Your task to perform on an android device: uninstall "Duolingo: language lessons" Image 0: 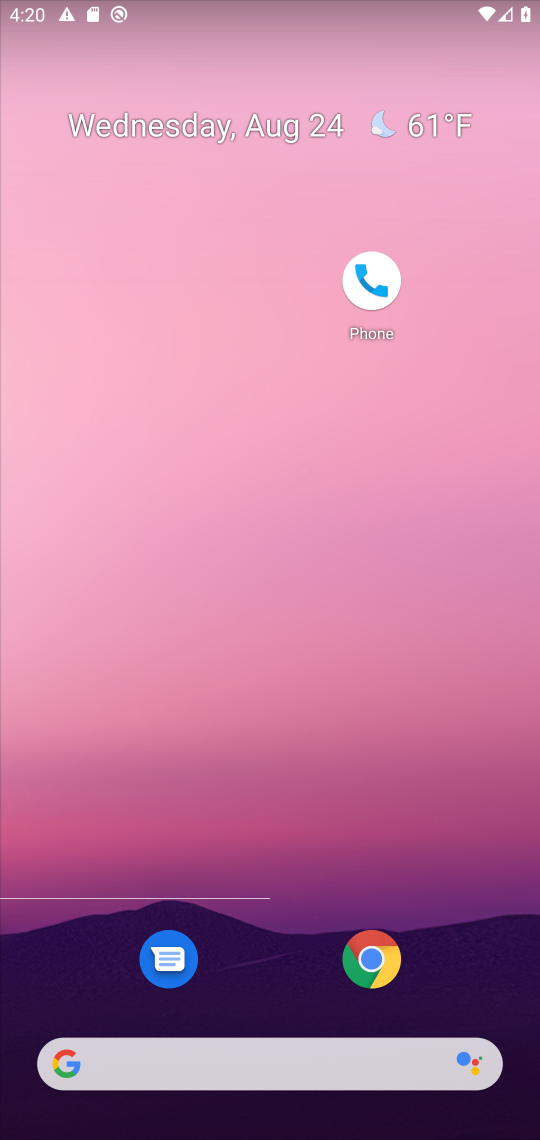
Step 0: drag from (290, 999) to (285, 192)
Your task to perform on an android device: uninstall "Duolingo: language lessons" Image 1: 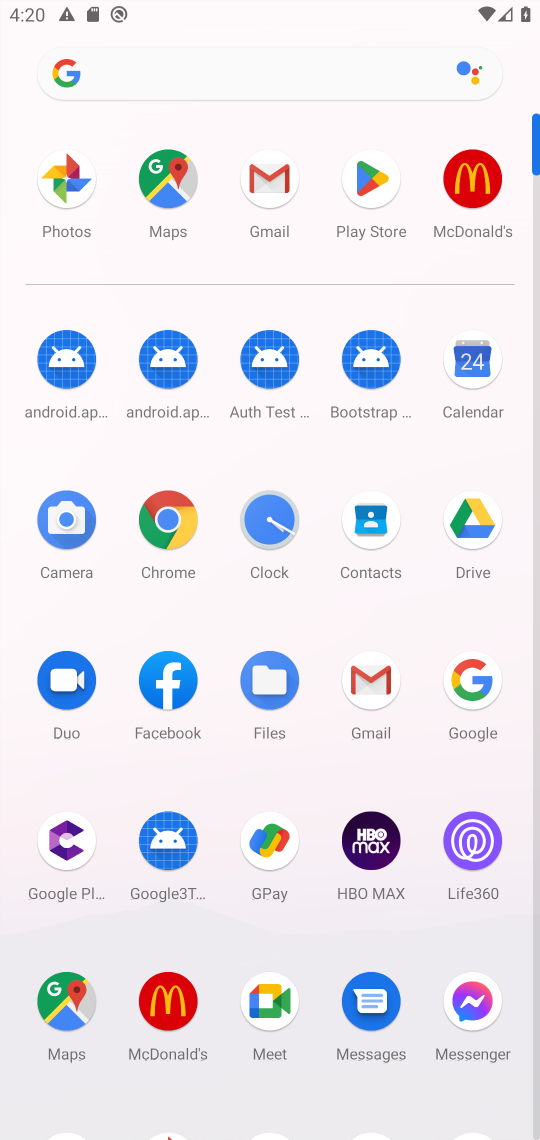
Step 1: click (355, 212)
Your task to perform on an android device: uninstall "Duolingo: language lessons" Image 2: 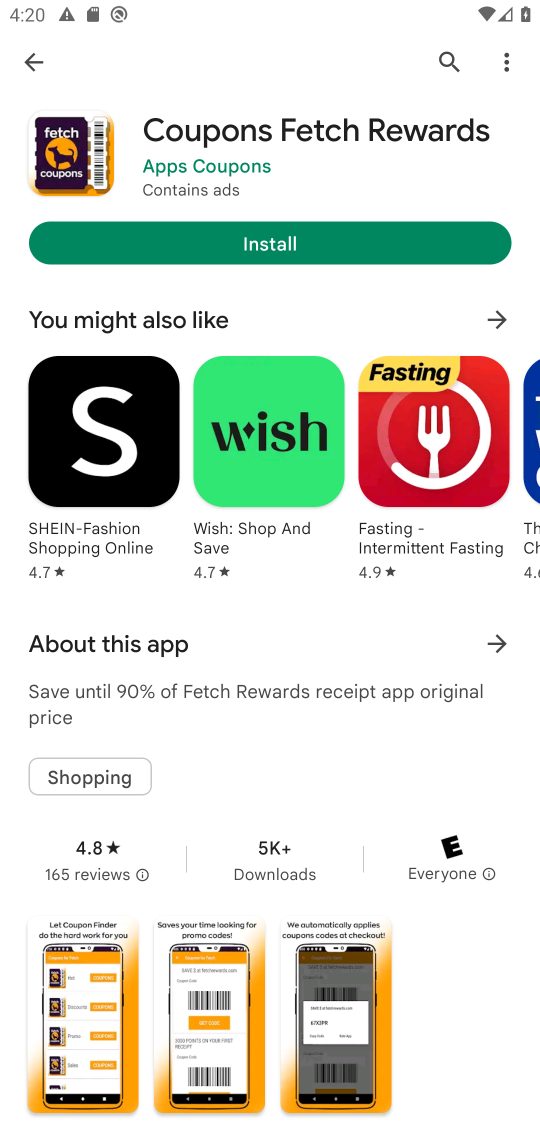
Step 2: click (455, 68)
Your task to perform on an android device: uninstall "Duolingo: language lessons" Image 3: 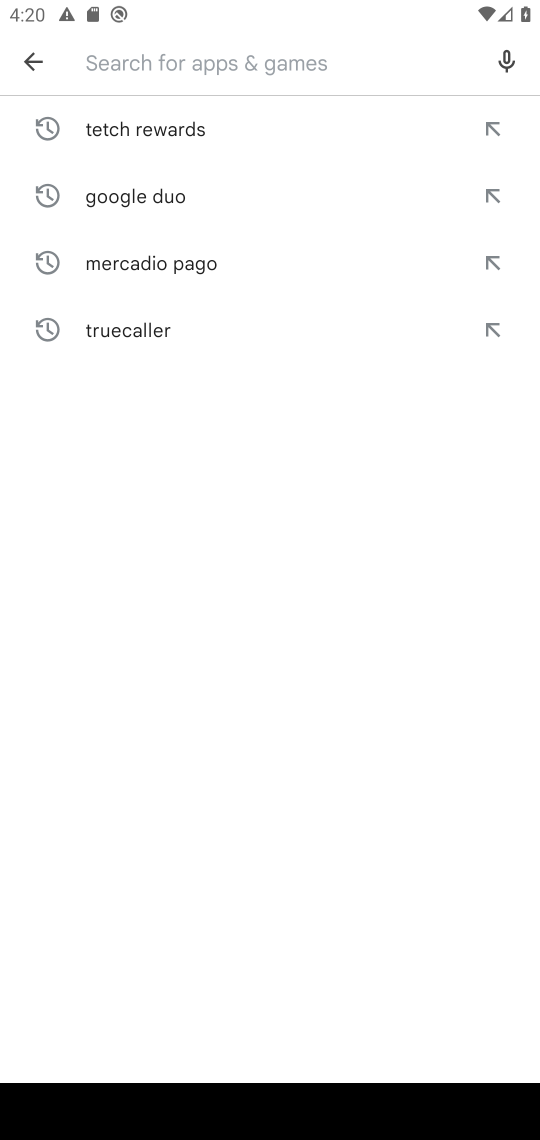
Step 3: type "duolingo"
Your task to perform on an android device: uninstall "Duolingo: language lessons" Image 4: 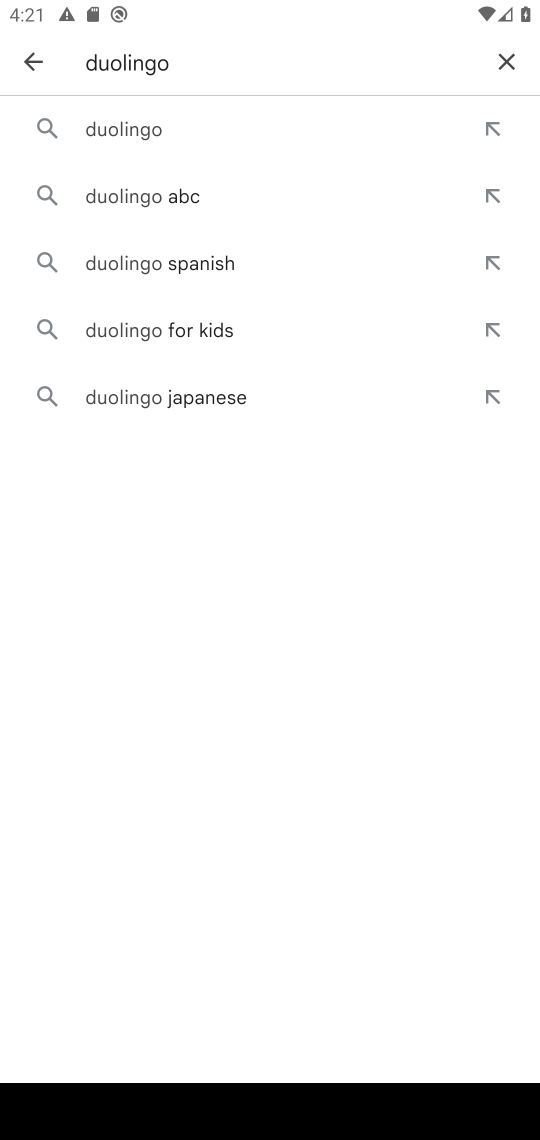
Step 4: click (204, 100)
Your task to perform on an android device: uninstall "Duolingo: language lessons" Image 5: 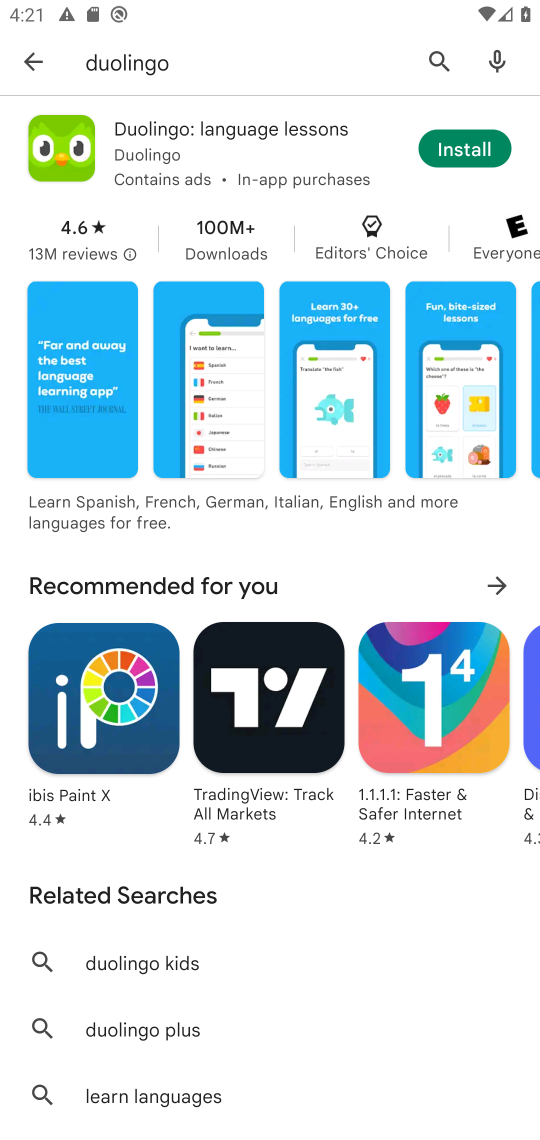
Step 5: click (443, 168)
Your task to perform on an android device: uninstall "Duolingo: language lessons" Image 6: 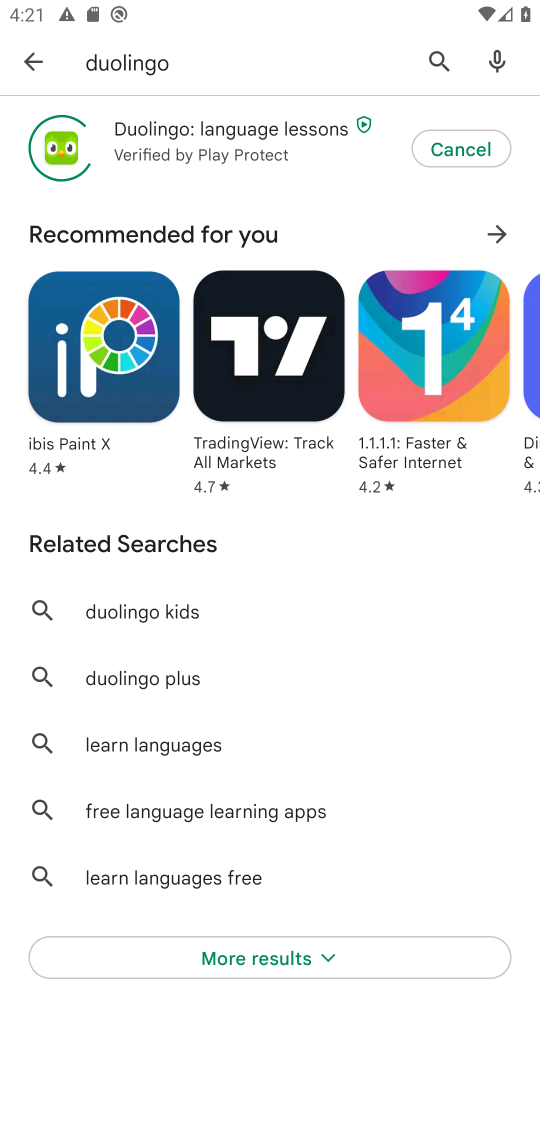
Step 6: task complete